Your task to perform on an android device: Open the map Image 0: 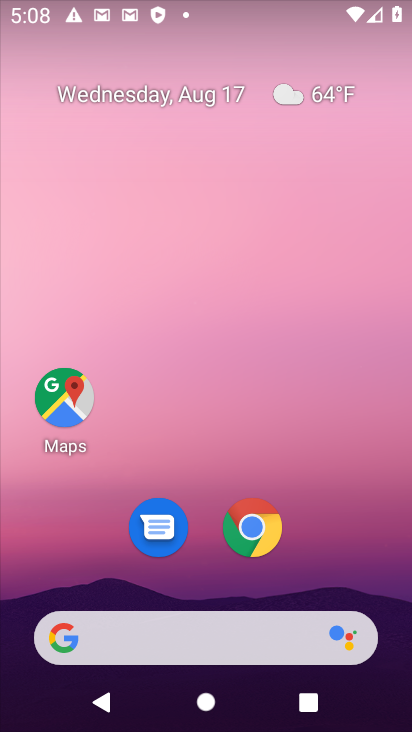
Step 0: click (80, 404)
Your task to perform on an android device: Open the map Image 1: 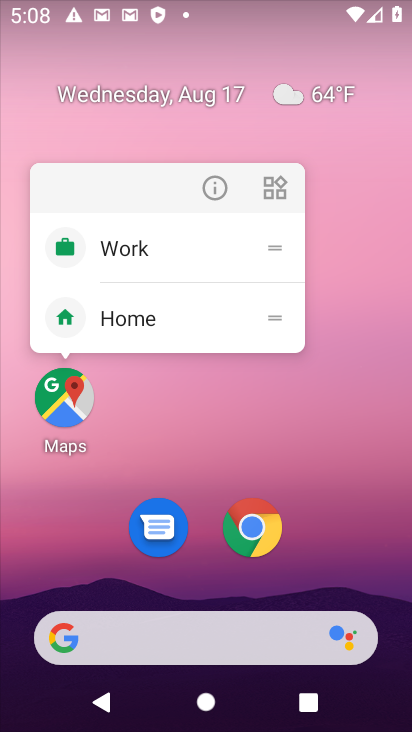
Step 1: click (76, 403)
Your task to perform on an android device: Open the map Image 2: 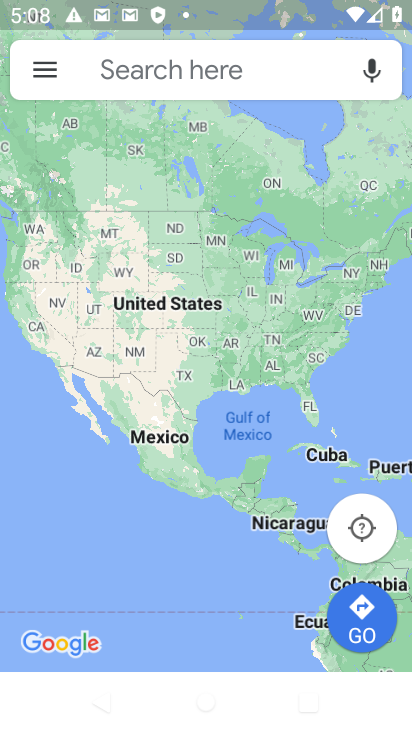
Step 2: task complete